Your task to perform on an android device: Open Google Maps and go to "Timeline" Image 0: 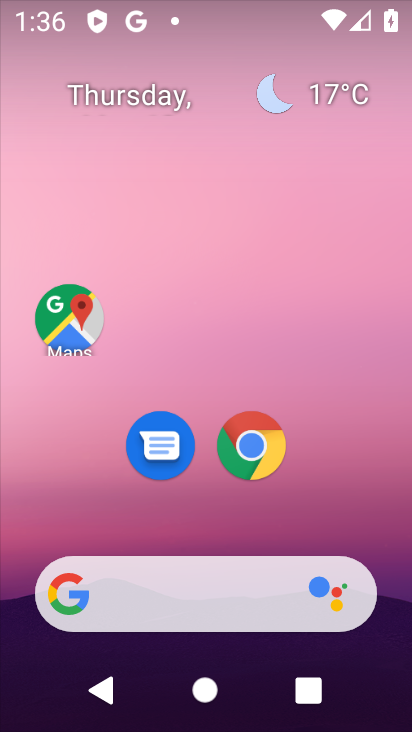
Step 0: click (63, 328)
Your task to perform on an android device: Open Google Maps and go to "Timeline" Image 1: 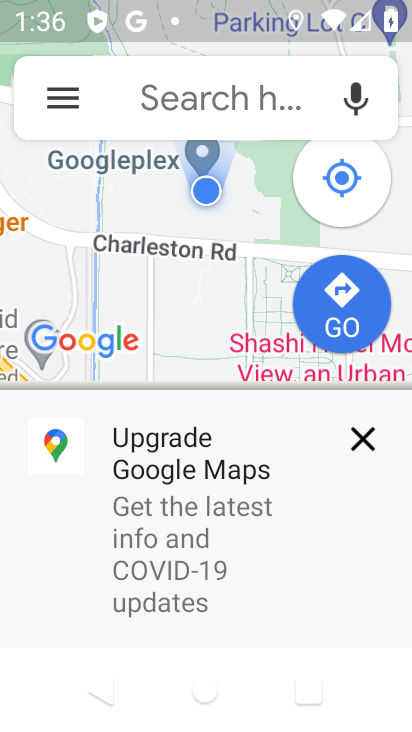
Step 1: click (58, 113)
Your task to perform on an android device: Open Google Maps and go to "Timeline" Image 2: 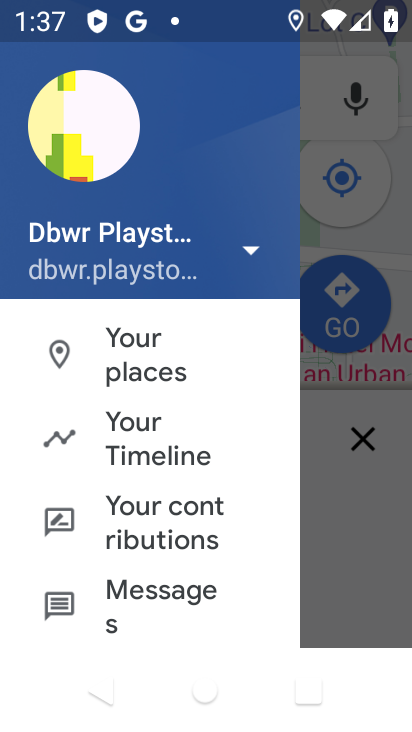
Step 2: click (149, 425)
Your task to perform on an android device: Open Google Maps and go to "Timeline" Image 3: 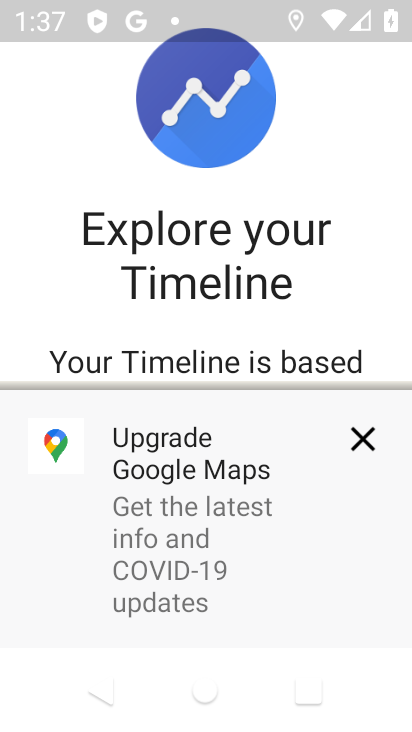
Step 3: click (359, 443)
Your task to perform on an android device: Open Google Maps and go to "Timeline" Image 4: 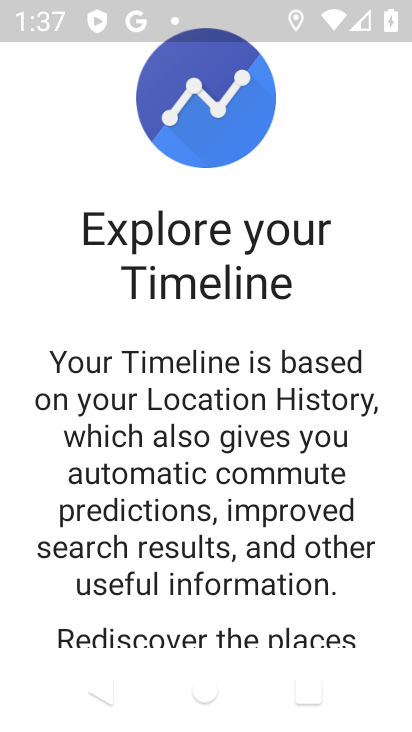
Step 4: task complete